Your task to perform on an android device: What's on my calendar tomorrow? Image 0: 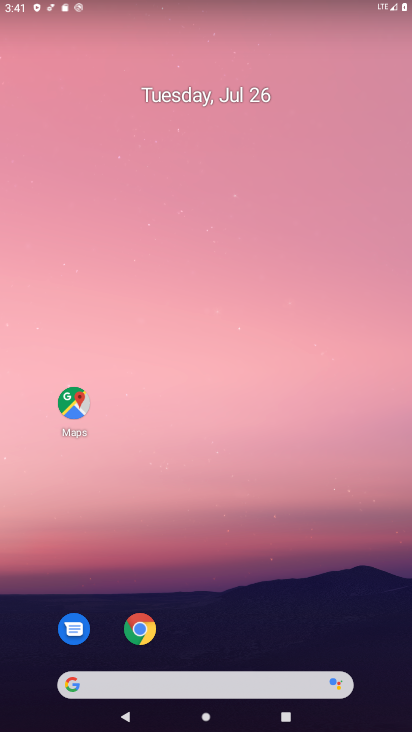
Step 0: drag from (232, 728) to (233, 157)
Your task to perform on an android device: What's on my calendar tomorrow? Image 1: 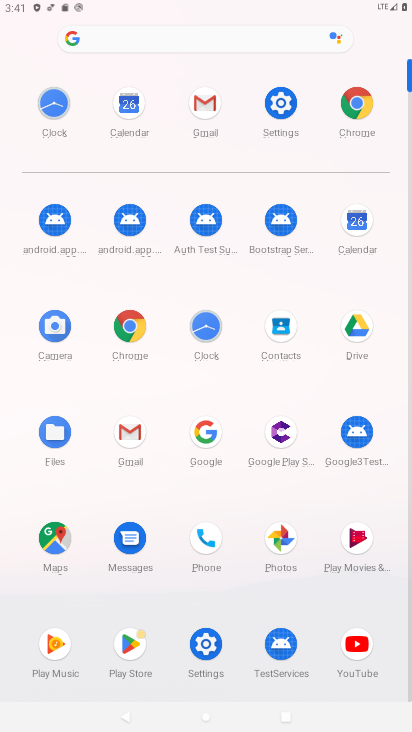
Step 1: click (361, 214)
Your task to perform on an android device: What's on my calendar tomorrow? Image 2: 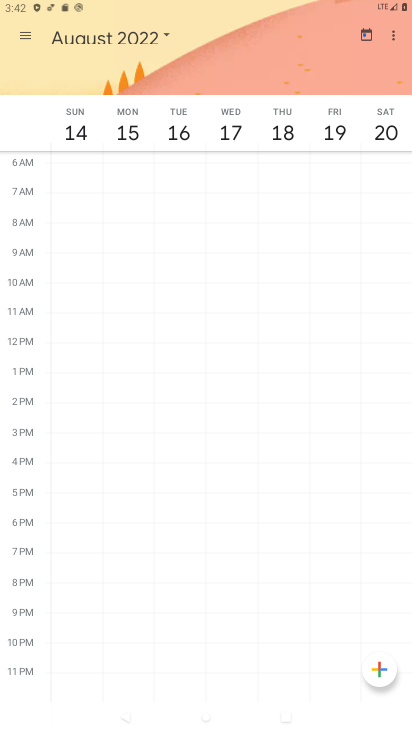
Step 2: click (168, 35)
Your task to perform on an android device: What's on my calendar tomorrow? Image 3: 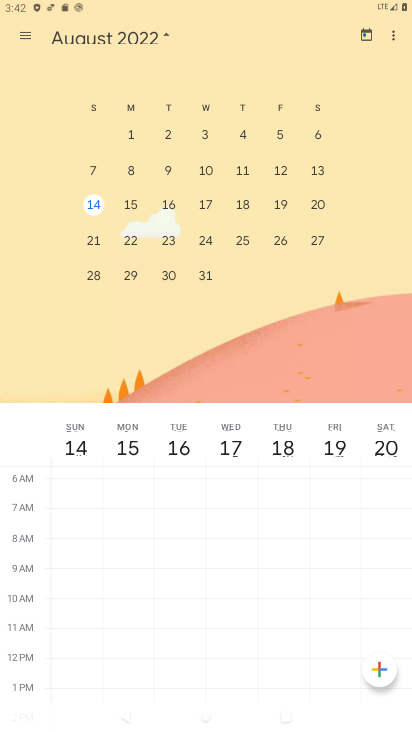
Step 3: drag from (109, 179) to (297, 195)
Your task to perform on an android device: What's on my calendar tomorrow? Image 4: 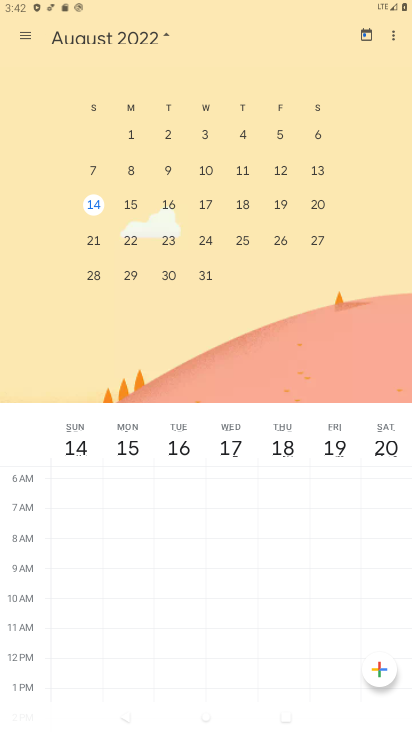
Step 4: drag from (65, 151) to (346, 146)
Your task to perform on an android device: What's on my calendar tomorrow? Image 5: 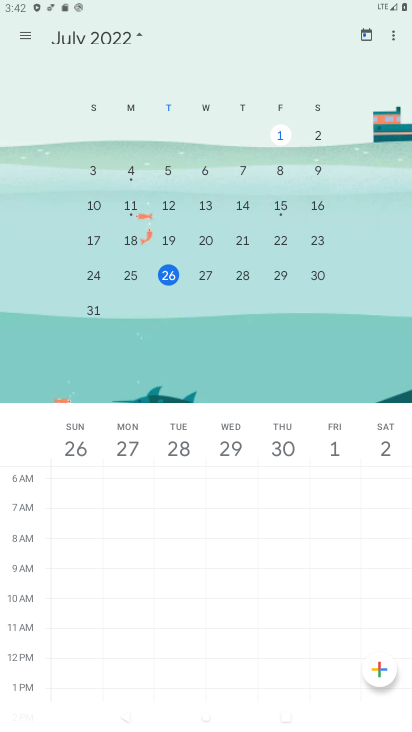
Step 5: click (203, 271)
Your task to perform on an android device: What's on my calendar tomorrow? Image 6: 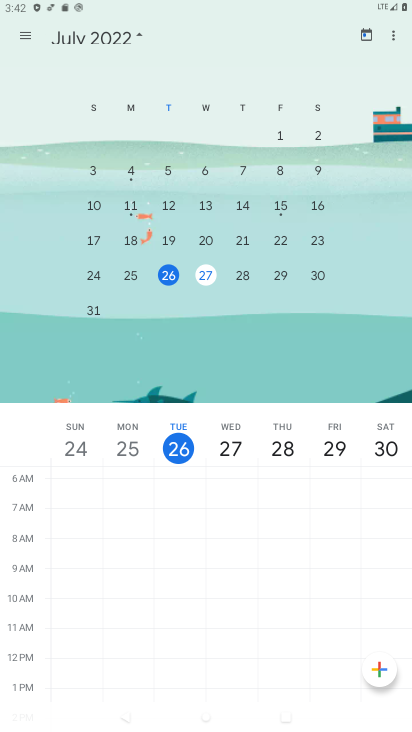
Step 6: click (226, 438)
Your task to perform on an android device: What's on my calendar tomorrow? Image 7: 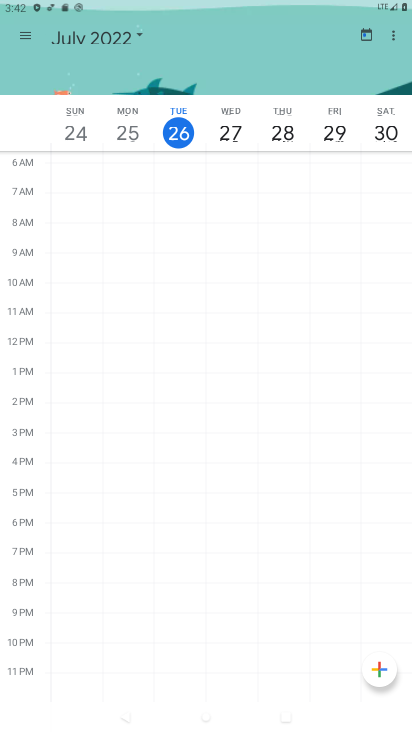
Step 7: click (232, 134)
Your task to perform on an android device: What's on my calendar tomorrow? Image 8: 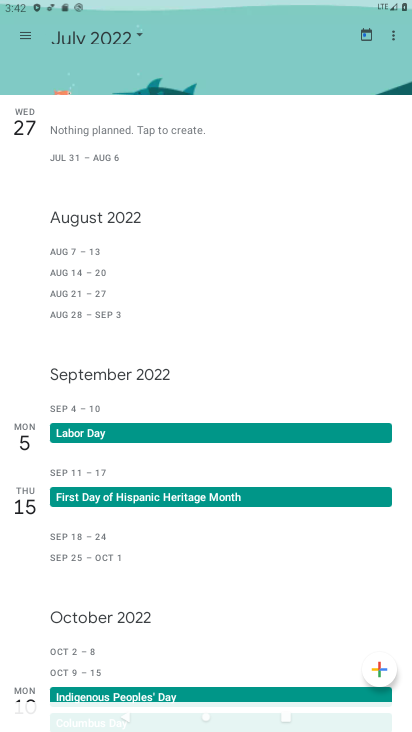
Step 8: task complete